Your task to perform on an android device: Show me popular games on the Play Store Image 0: 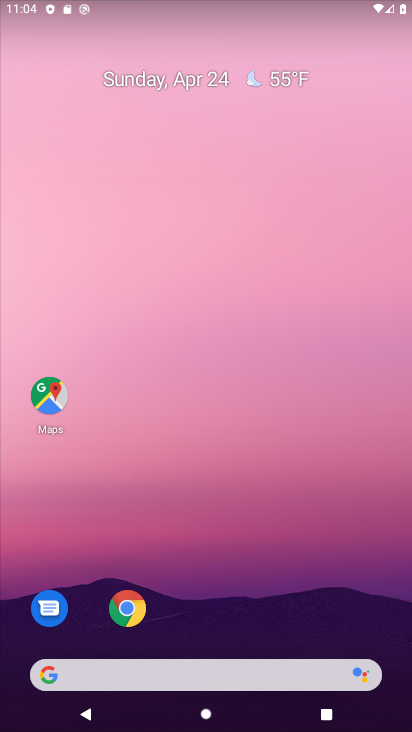
Step 0: drag from (234, 619) to (345, 37)
Your task to perform on an android device: Show me popular games on the Play Store Image 1: 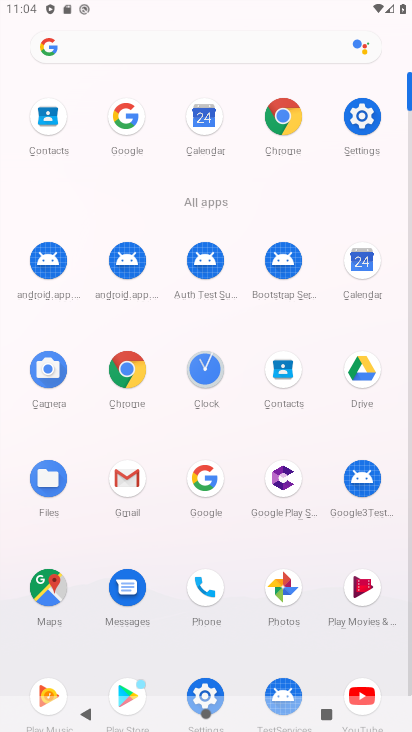
Step 1: click (136, 686)
Your task to perform on an android device: Show me popular games on the Play Store Image 2: 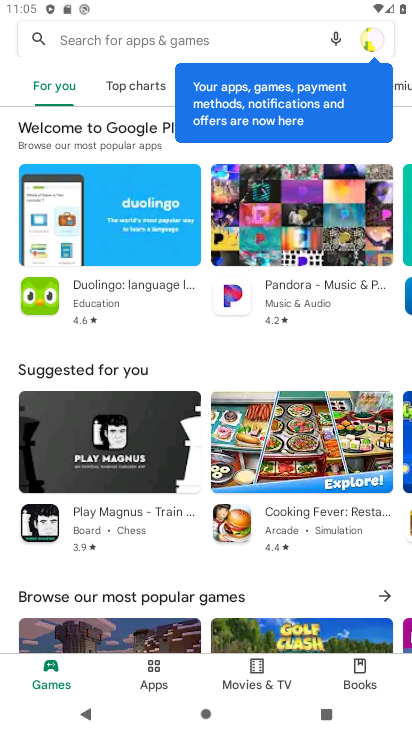
Step 2: drag from (142, 531) to (219, 166)
Your task to perform on an android device: Show me popular games on the Play Store Image 3: 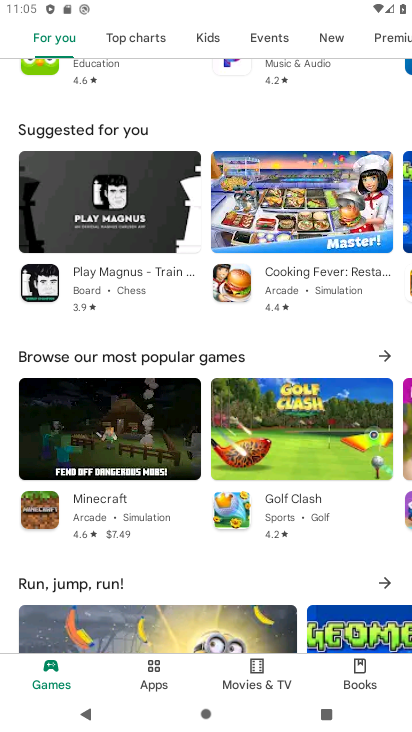
Step 3: click (389, 358)
Your task to perform on an android device: Show me popular games on the Play Store Image 4: 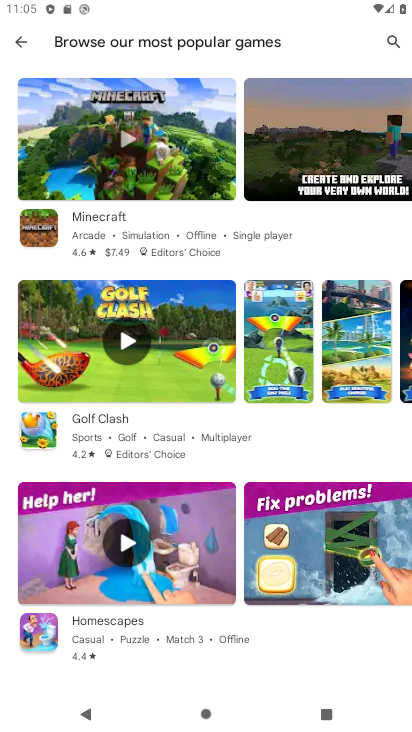
Step 4: task complete